Your task to perform on an android device: change alarm snooze length Image 0: 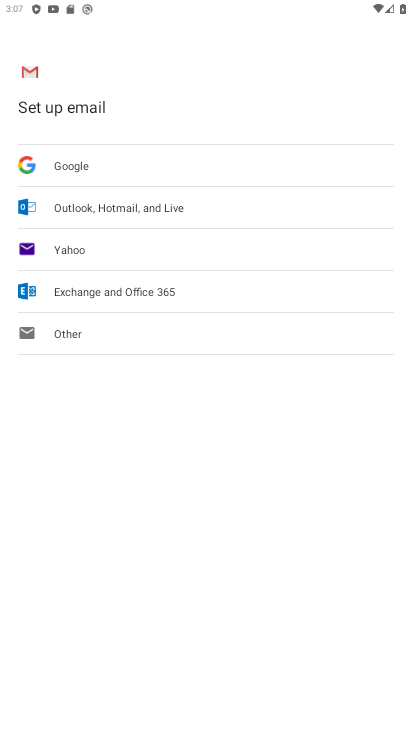
Step 0: press home button
Your task to perform on an android device: change alarm snooze length Image 1: 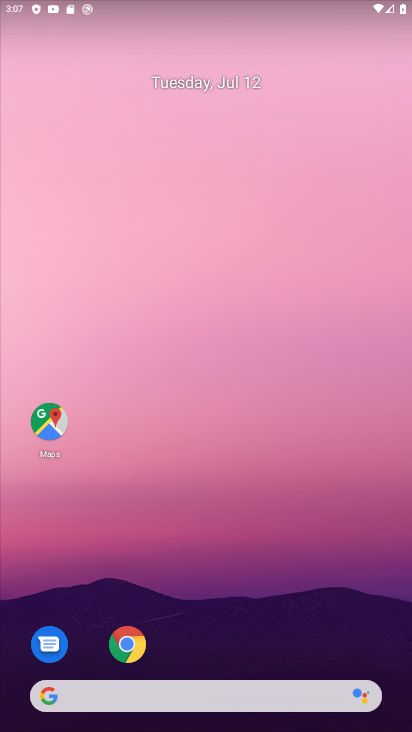
Step 1: drag from (307, 597) to (232, 62)
Your task to perform on an android device: change alarm snooze length Image 2: 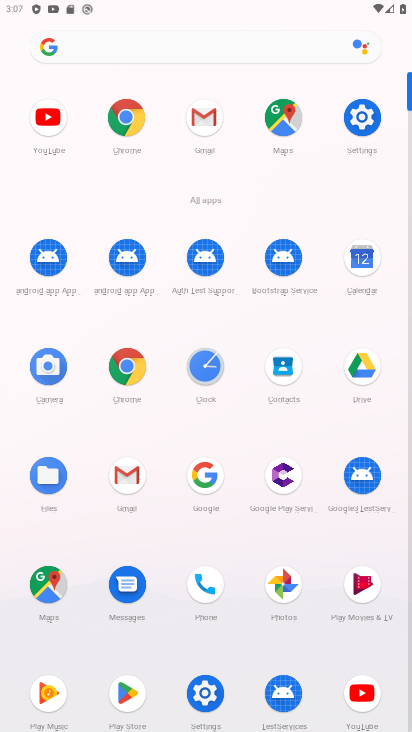
Step 2: click (202, 372)
Your task to perform on an android device: change alarm snooze length Image 3: 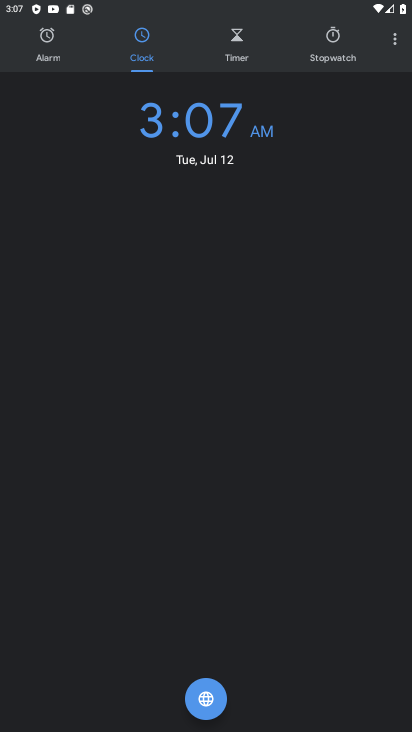
Step 3: click (409, 33)
Your task to perform on an android device: change alarm snooze length Image 4: 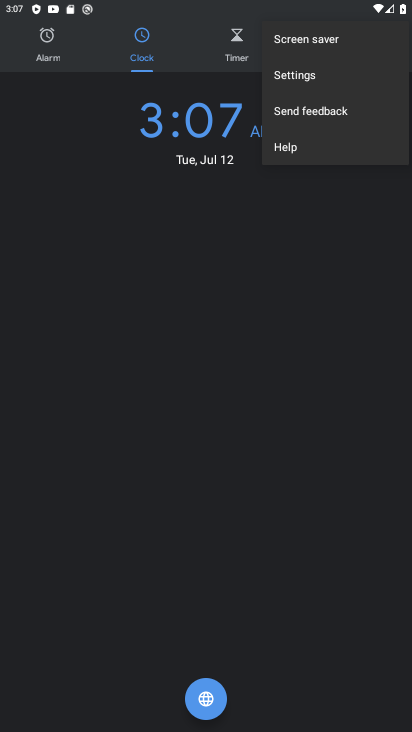
Step 4: click (305, 78)
Your task to perform on an android device: change alarm snooze length Image 5: 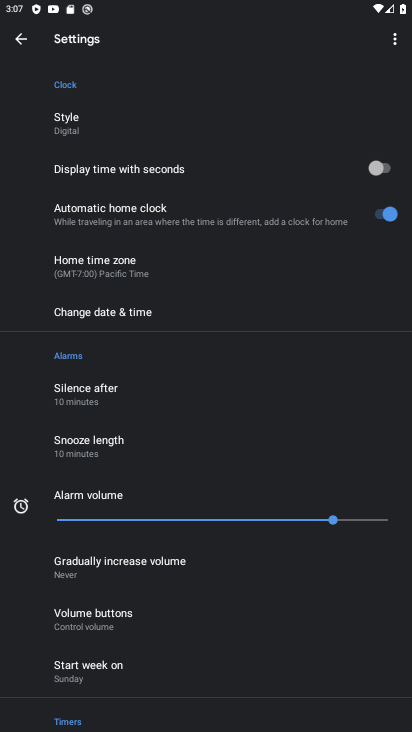
Step 5: click (100, 450)
Your task to perform on an android device: change alarm snooze length Image 6: 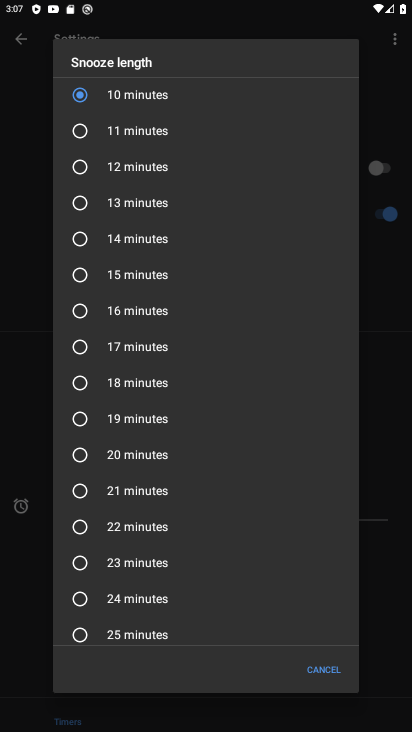
Step 6: click (139, 143)
Your task to perform on an android device: change alarm snooze length Image 7: 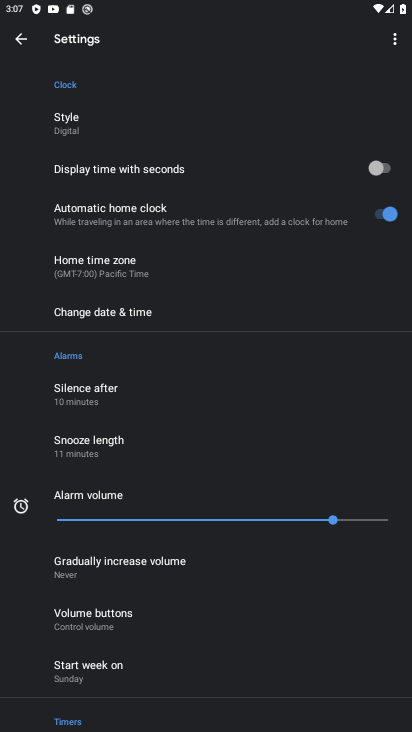
Step 7: task complete